Your task to perform on an android device: Search for vegetarian restaurants on Maps Image 0: 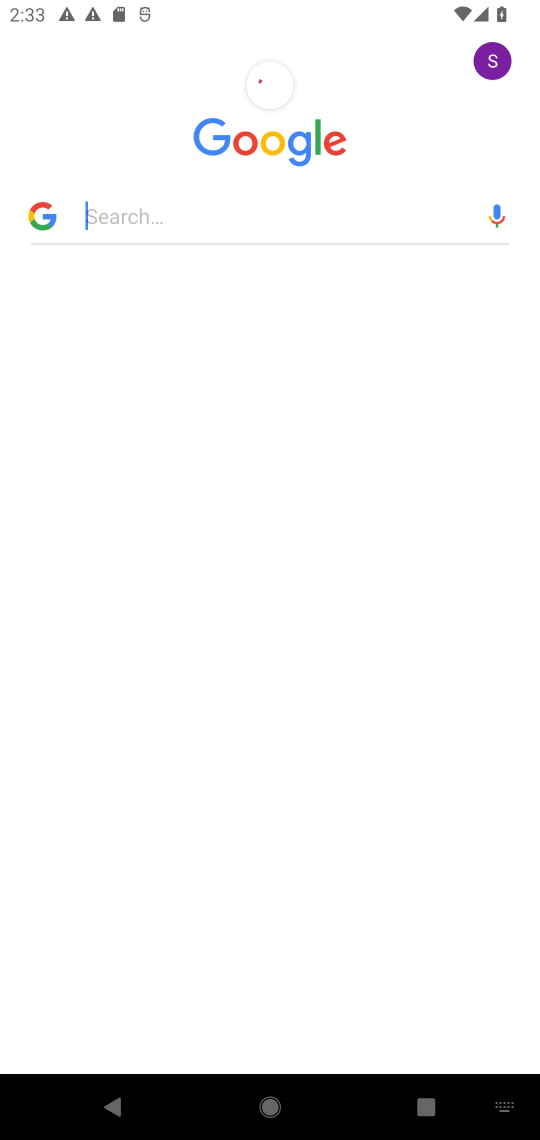
Step 0: press home button
Your task to perform on an android device: Search for vegetarian restaurants on Maps Image 1: 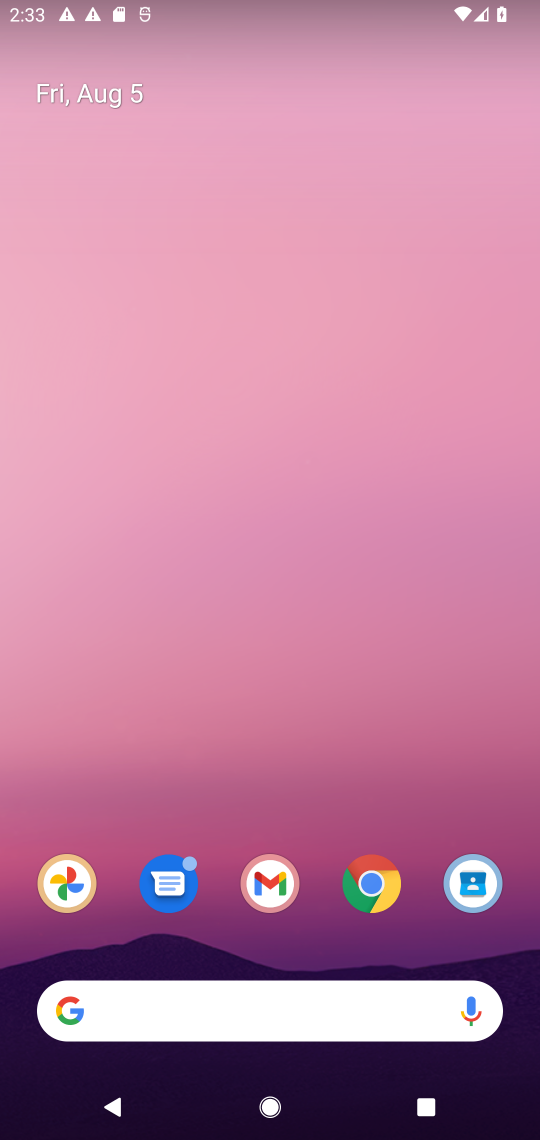
Step 1: drag from (274, 807) to (161, 34)
Your task to perform on an android device: Search for vegetarian restaurants on Maps Image 2: 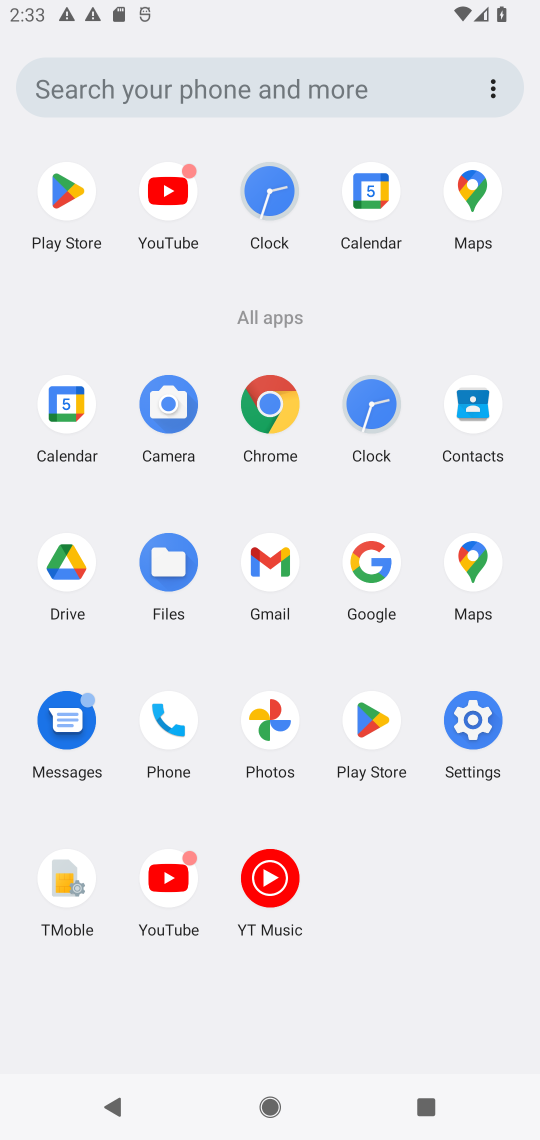
Step 2: click (469, 556)
Your task to perform on an android device: Search for vegetarian restaurants on Maps Image 3: 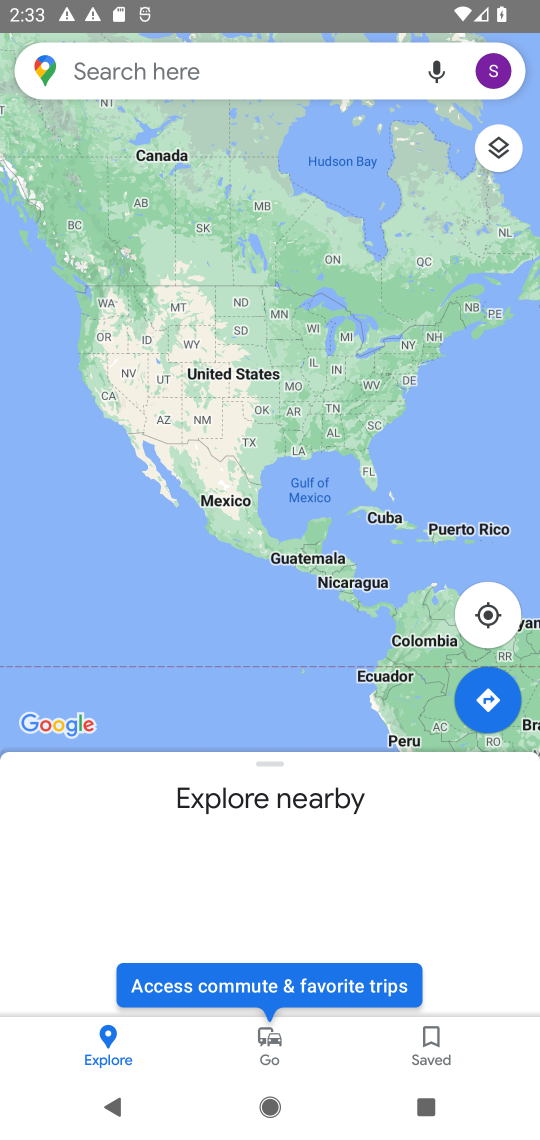
Step 3: click (138, 51)
Your task to perform on an android device: Search for vegetarian restaurants on Maps Image 4: 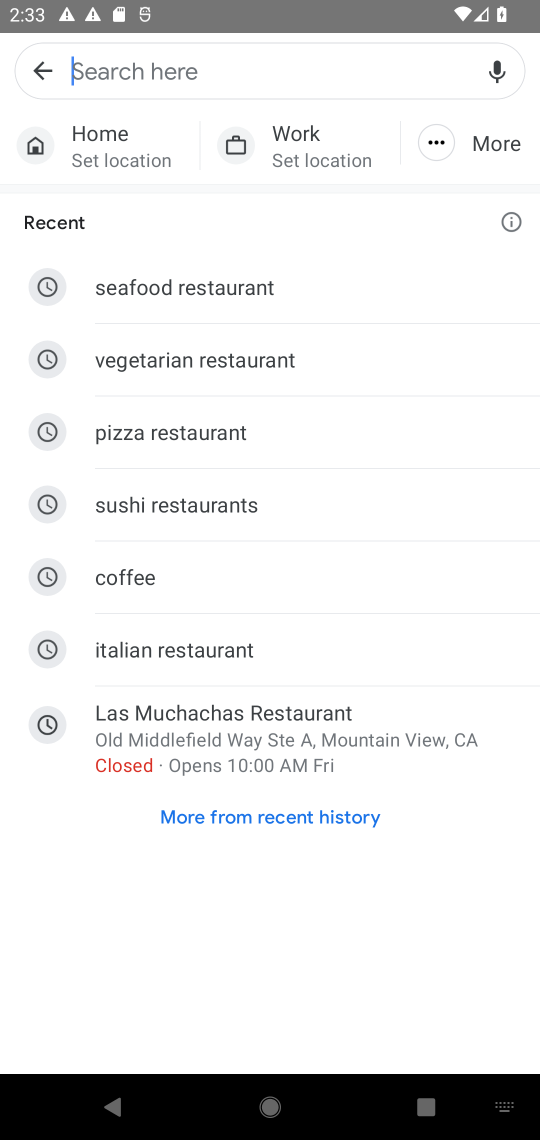
Step 4: click (246, 353)
Your task to perform on an android device: Search for vegetarian restaurants on Maps Image 5: 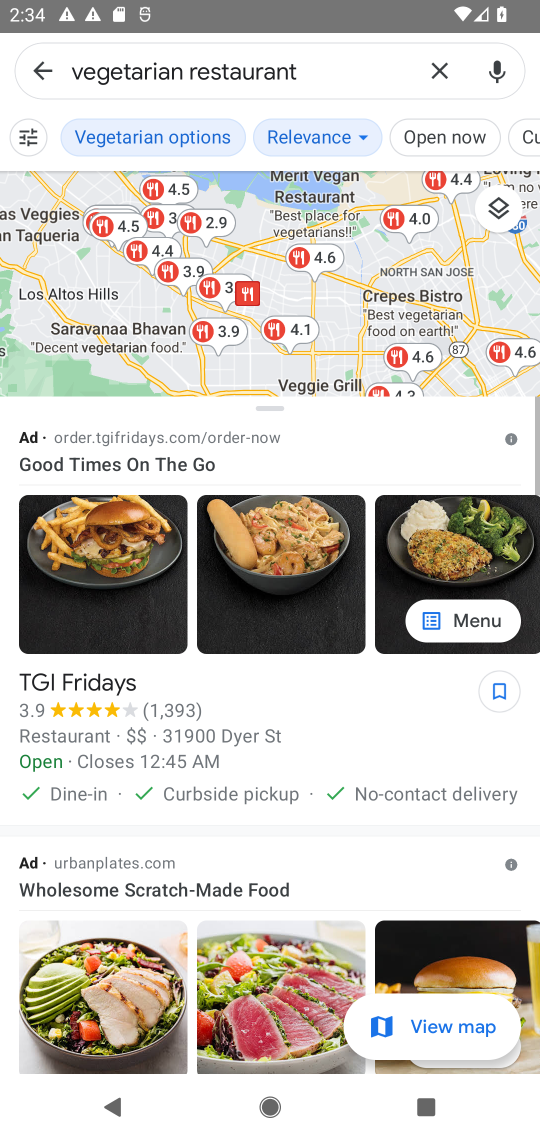
Step 5: task complete